Your task to perform on an android device: open app "Spotify" (install if not already installed) and go to login screen Image 0: 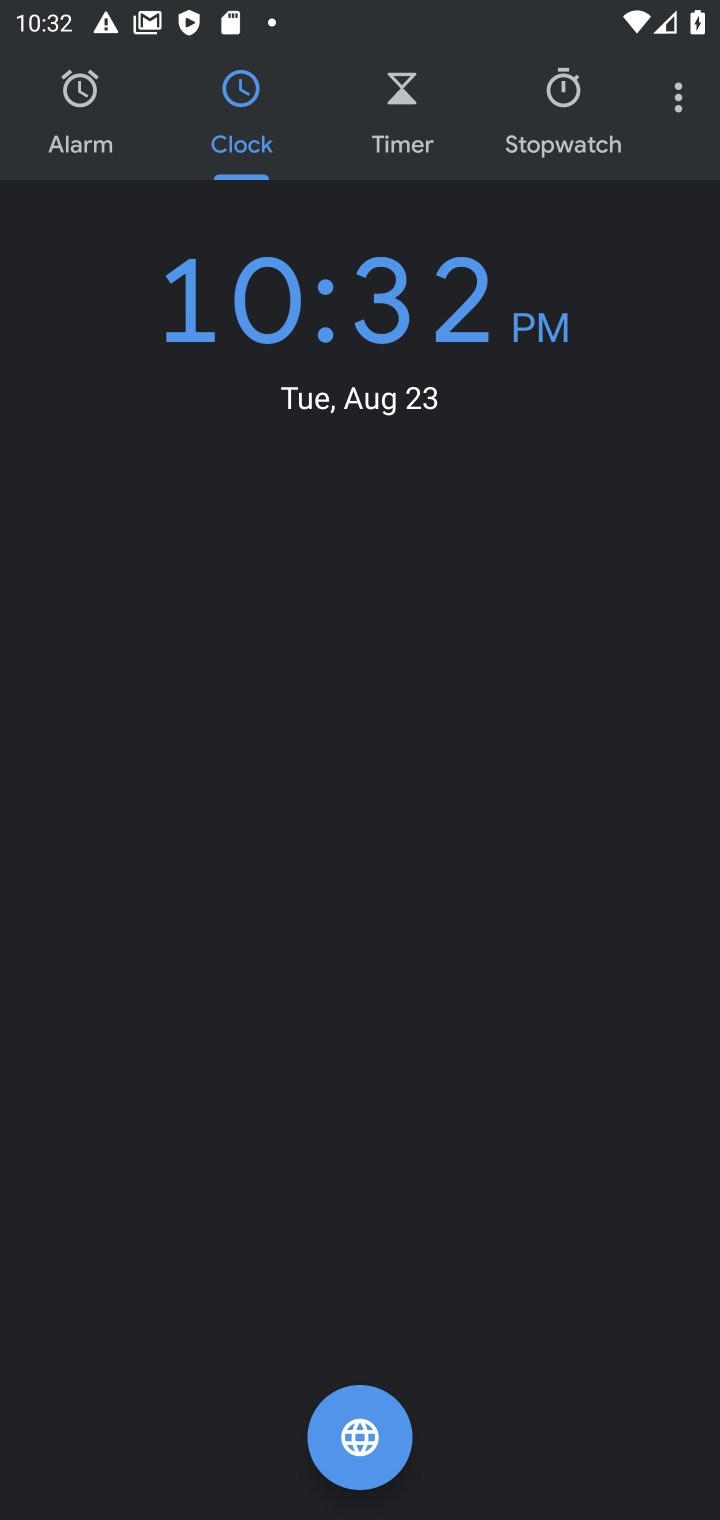
Step 0: press home button
Your task to perform on an android device: open app "Spotify" (install if not already installed) and go to login screen Image 1: 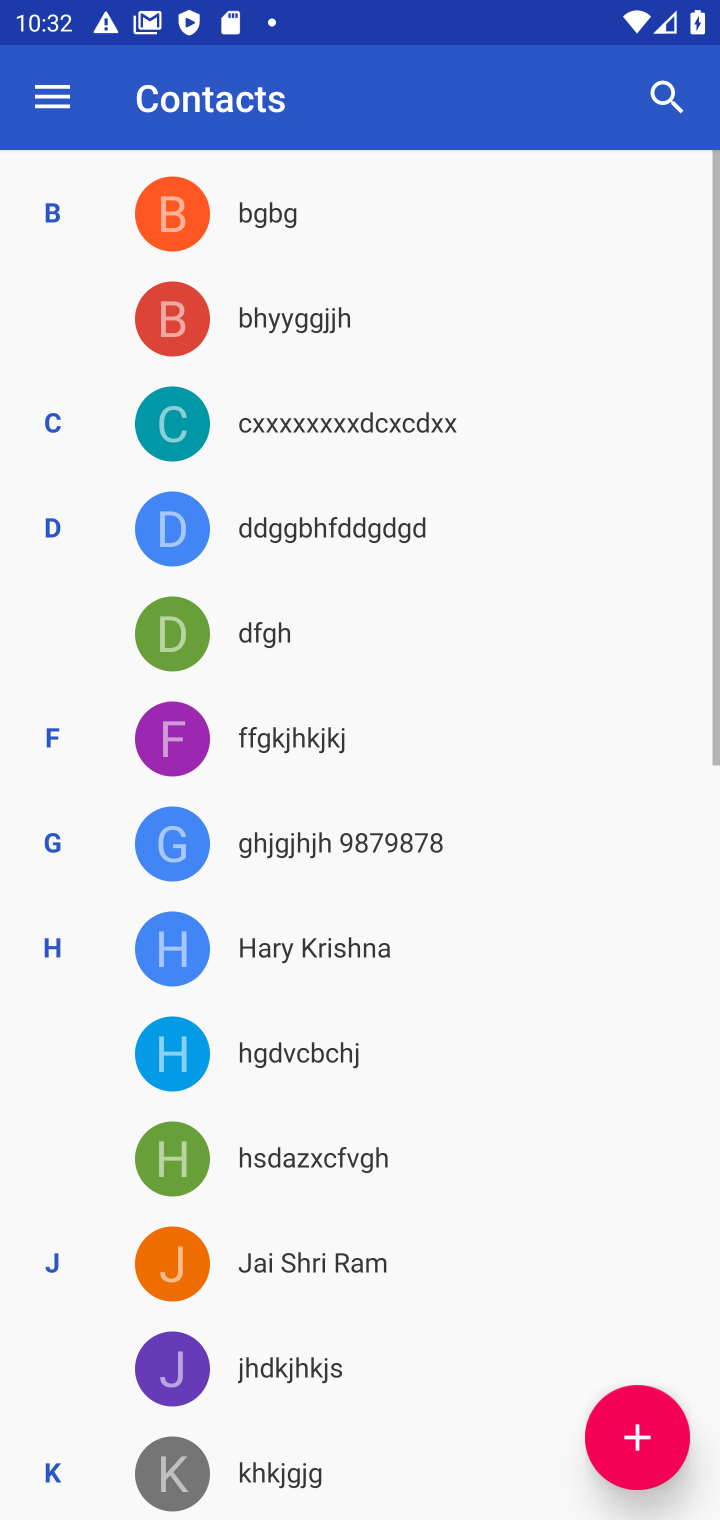
Step 1: press home button
Your task to perform on an android device: open app "Spotify" (install if not already installed) and go to login screen Image 2: 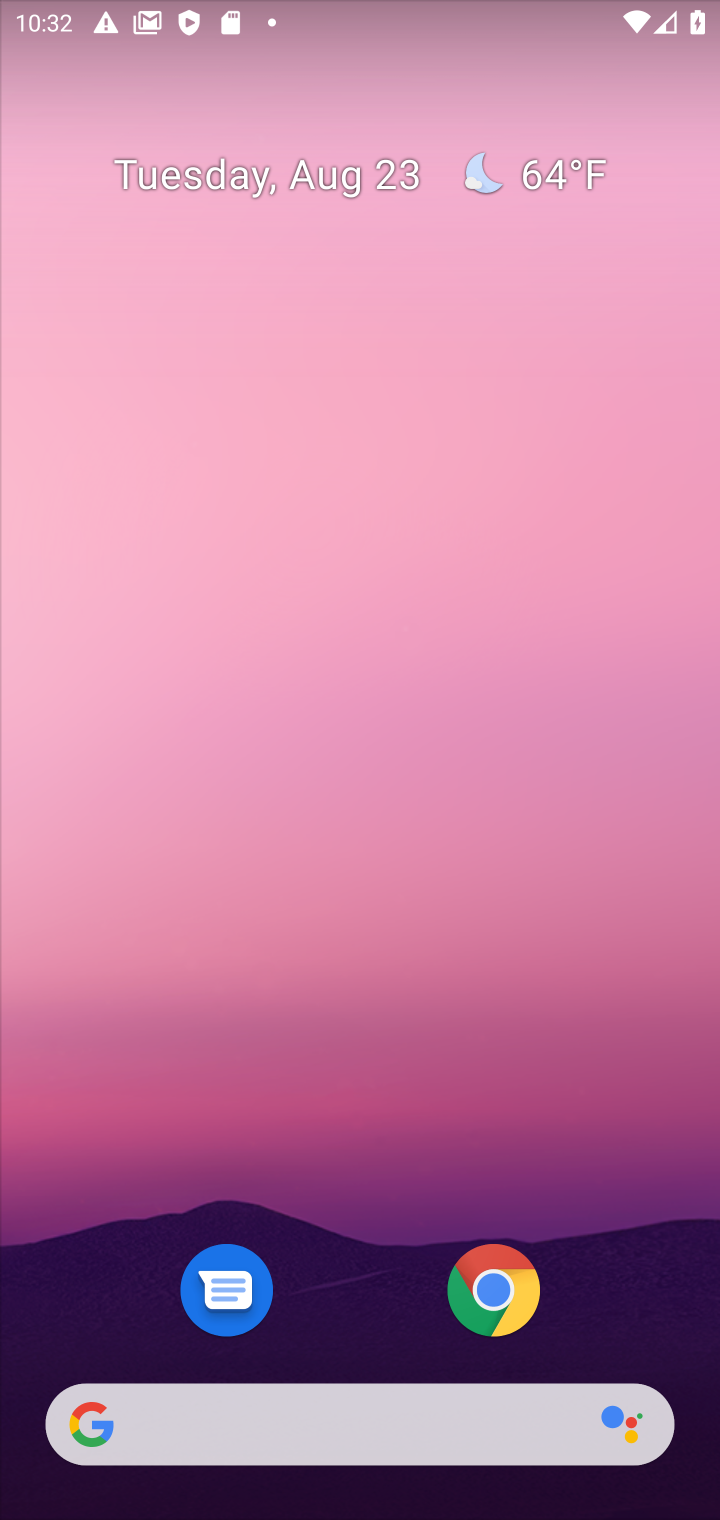
Step 2: drag from (329, 1270) to (319, 73)
Your task to perform on an android device: open app "Spotify" (install if not already installed) and go to login screen Image 3: 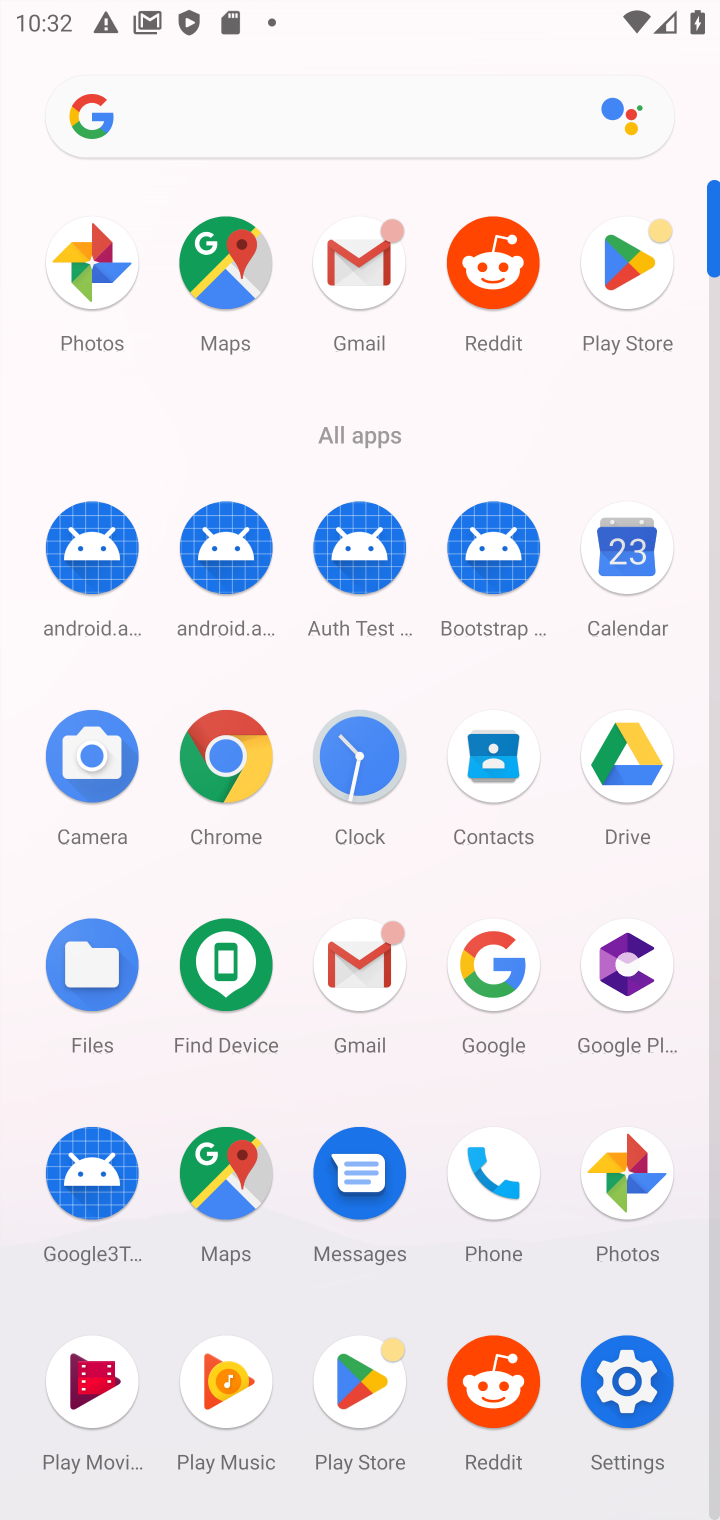
Step 3: click (614, 266)
Your task to perform on an android device: open app "Spotify" (install if not already installed) and go to login screen Image 4: 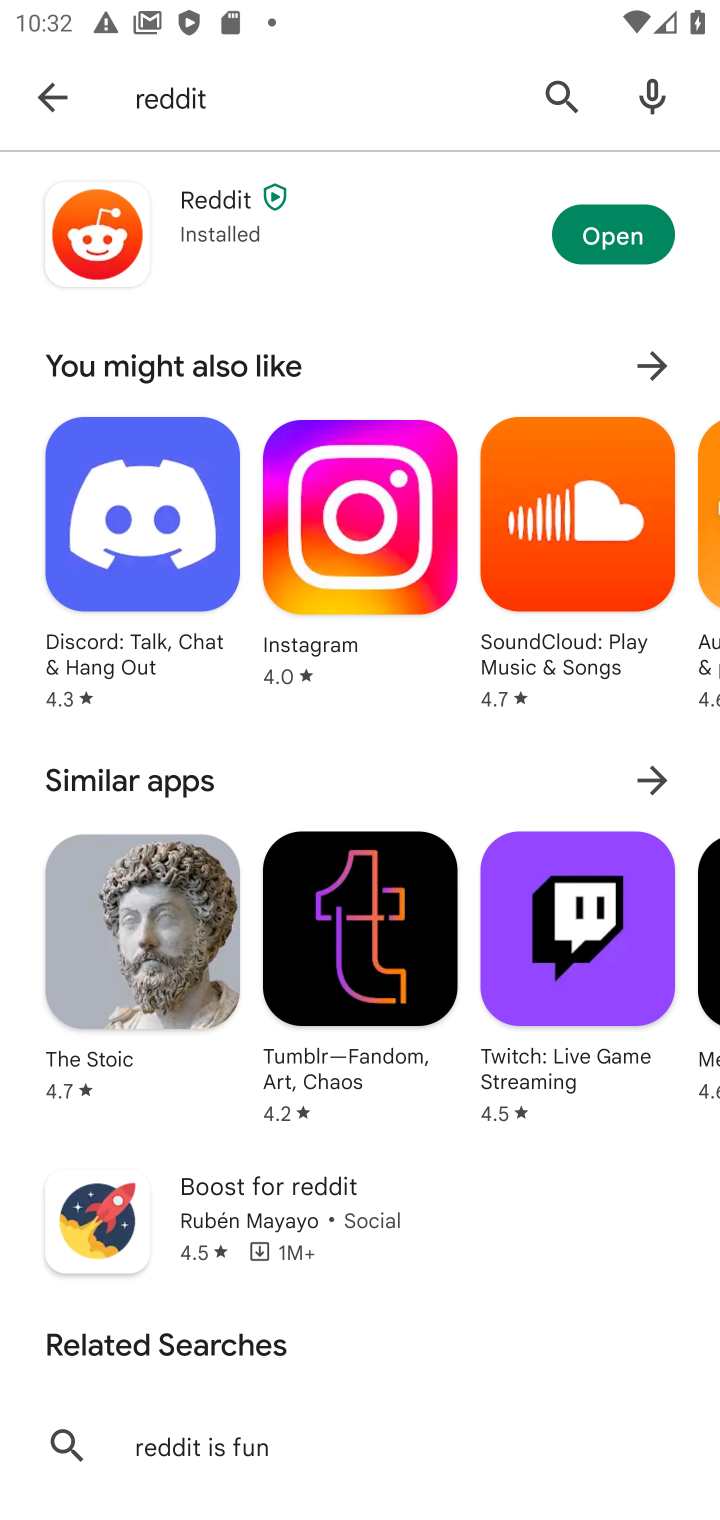
Step 4: click (560, 87)
Your task to perform on an android device: open app "Spotify" (install if not already installed) and go to login screen Image 5: 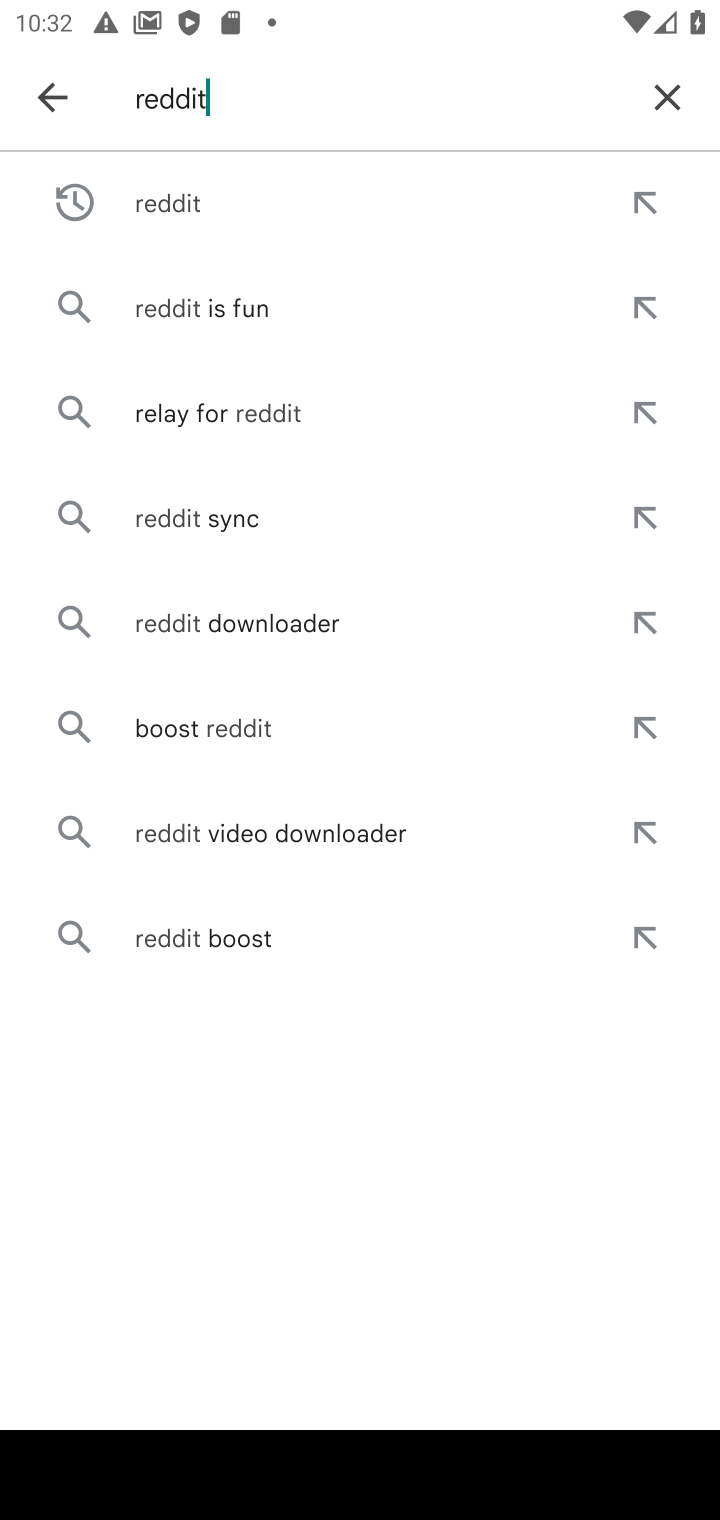
Step 5: click (669, 87)
Your task to perform on an android device: open app "Spotify" (install if not already installed) and go to login screen Image 6: 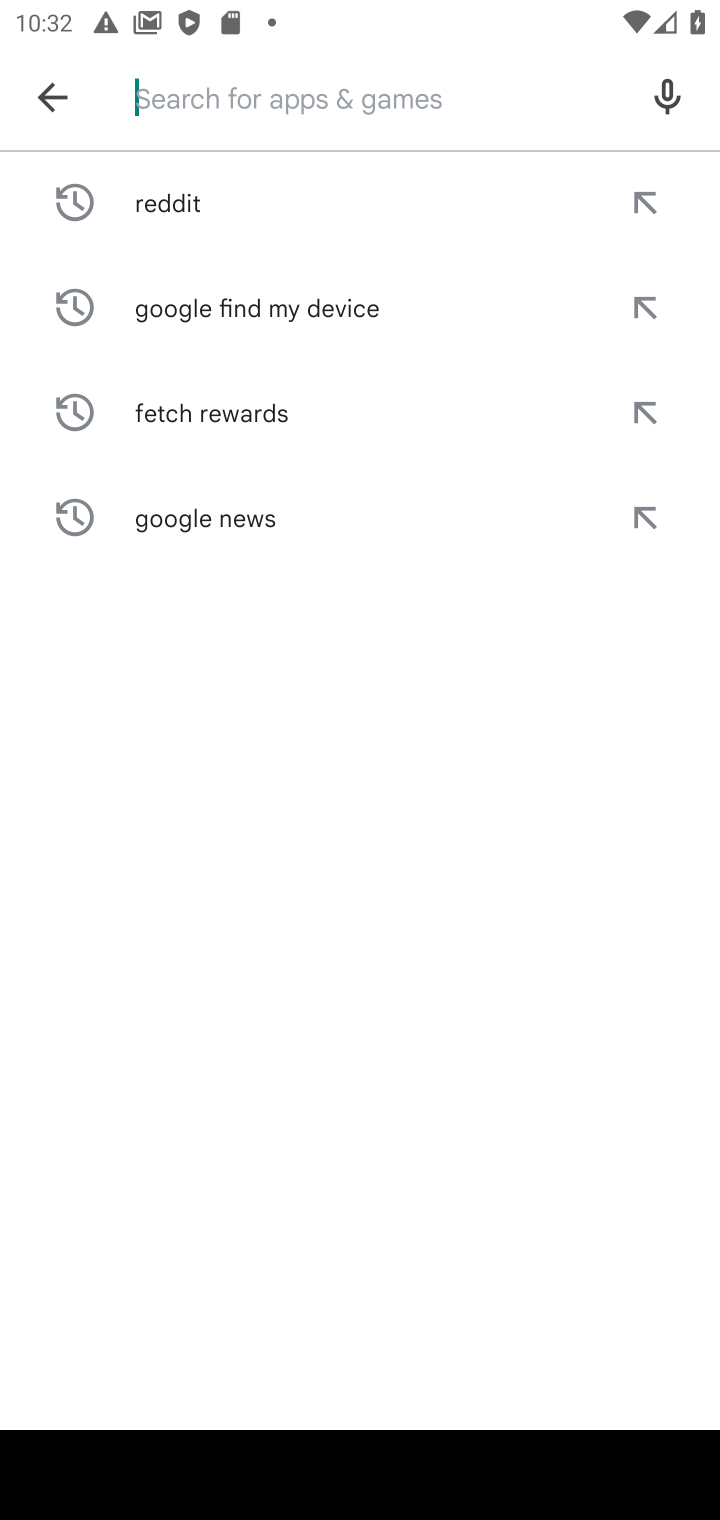
Step 6: type "Spotify"
Your task to perform on an android device: open app "Spotify" (install if not already installed) and go to login screen Image 7: 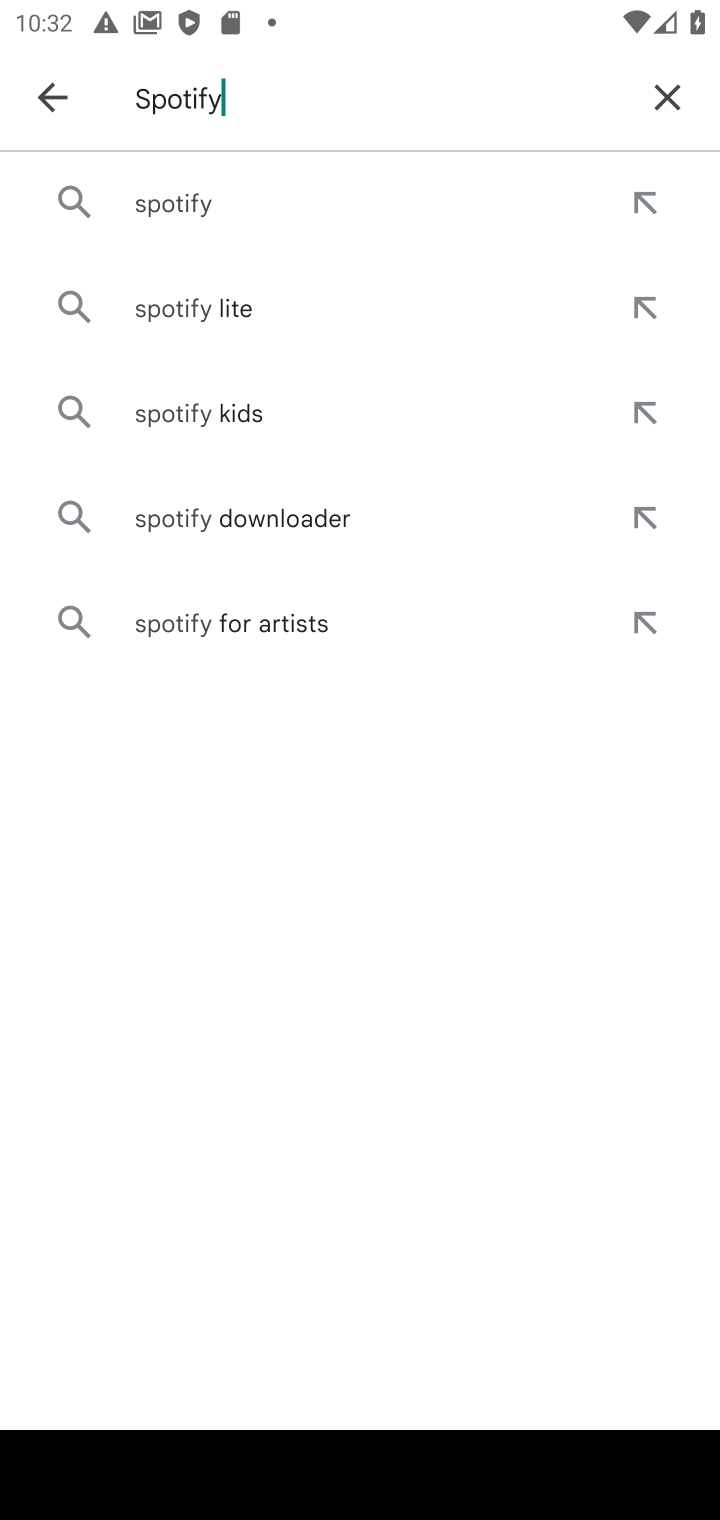
Step 7: click (158, 200)
Your task to perform on an android device: open app "Spotify" (install if not already installed) and go to login screen Image 8: 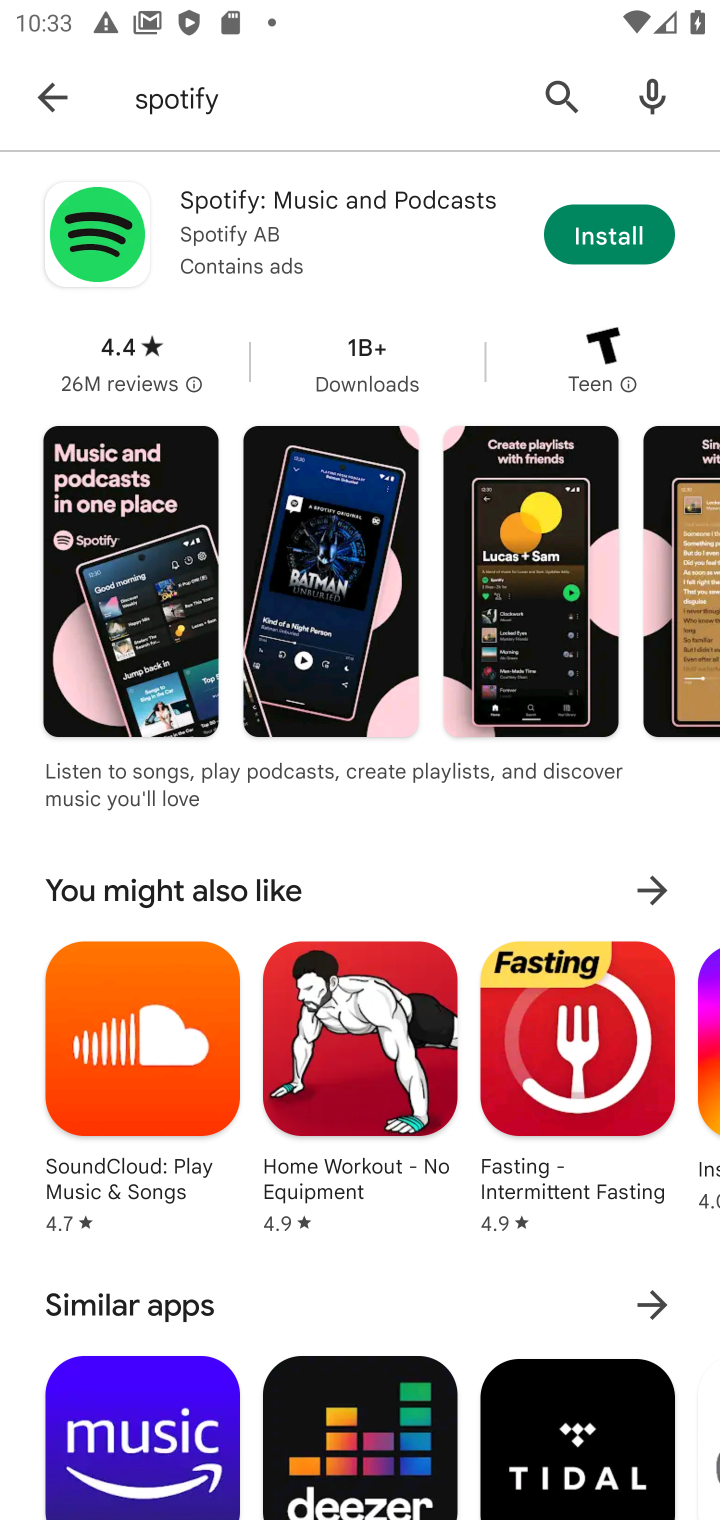
Step 8: click (596, 230)
Your task to perform on an android device: open app "Spotify" (install if not already installed) and go to login screen Image 9: 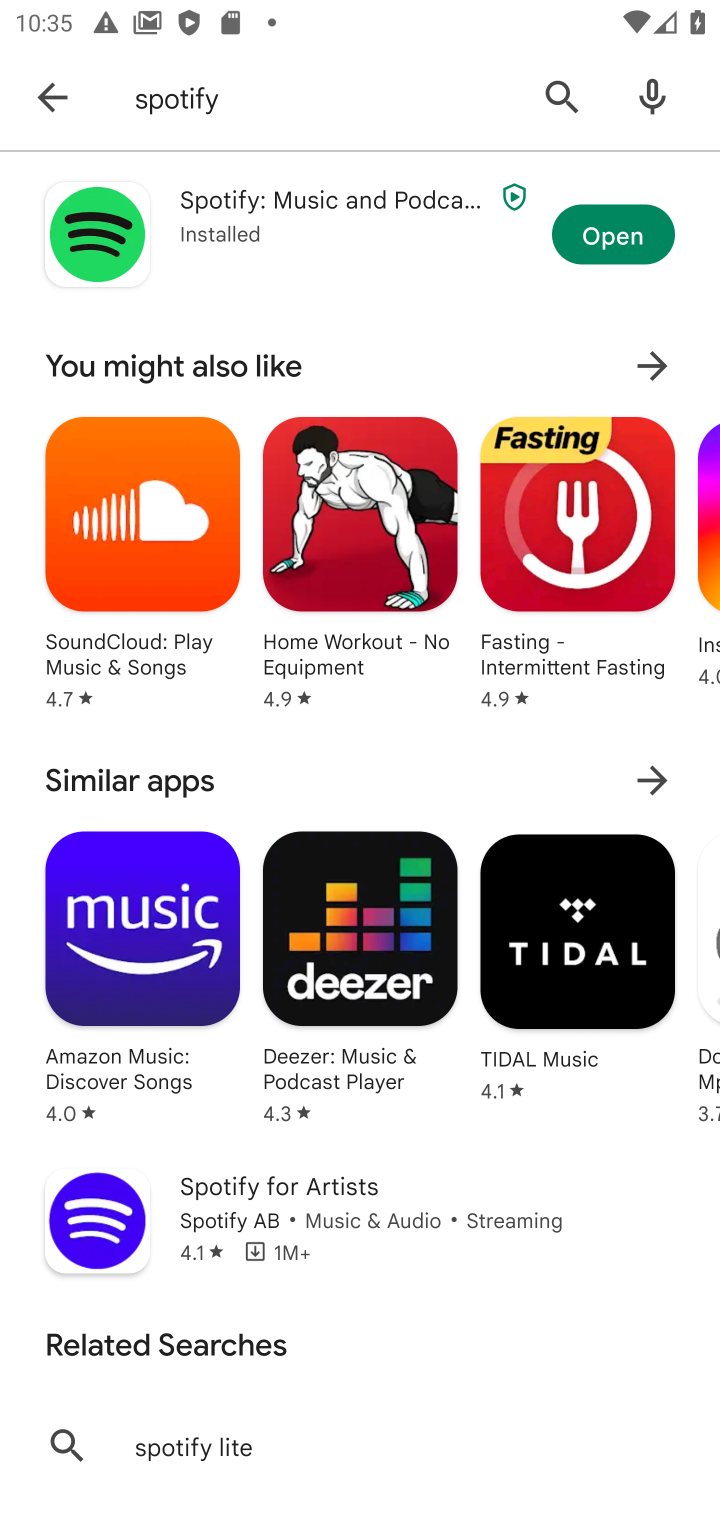
Step 9: click (624, 253)
Your task to perform on an android device: open app "Spotify" (install if not already installed) and go to login screen Image 10: 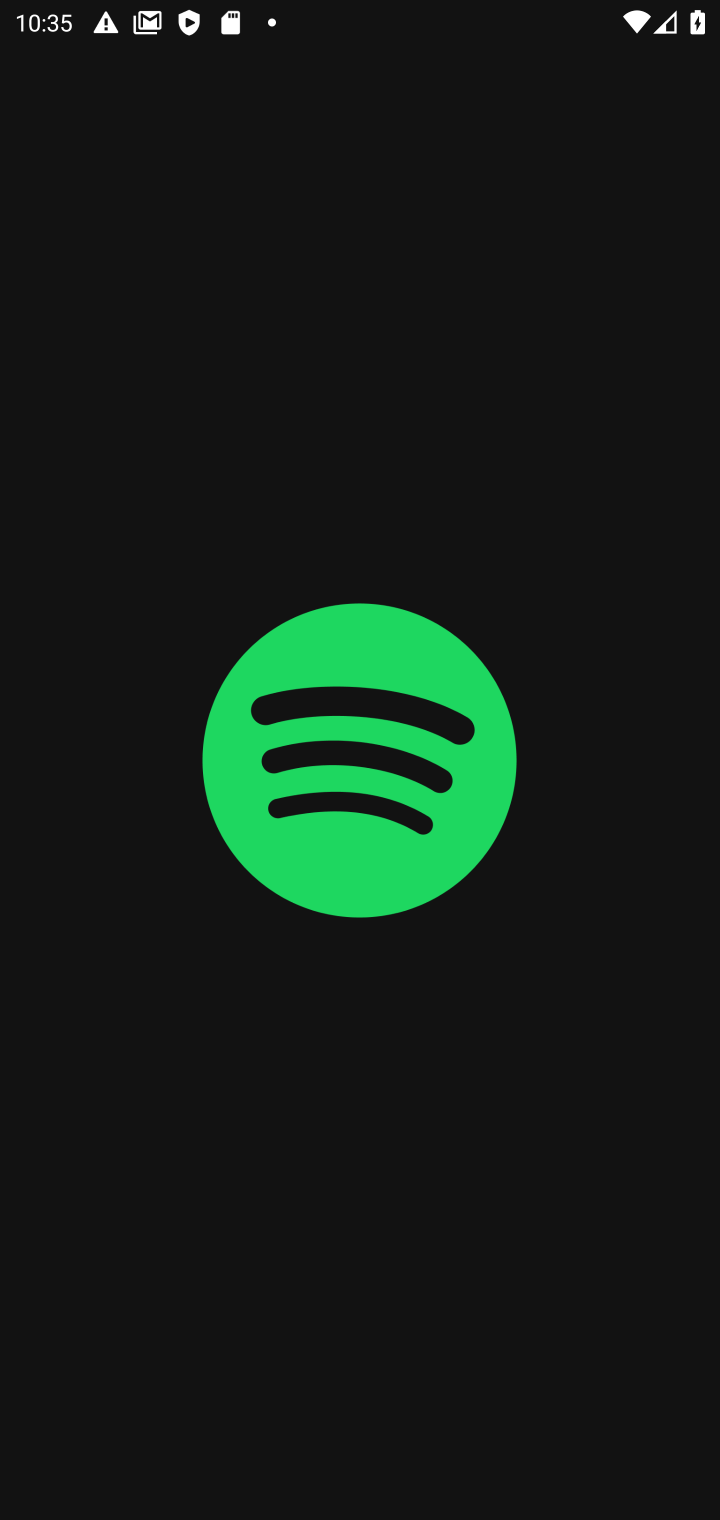
Step 10: task complete